Your task to perform on an android device: Go to location settings Image 0: 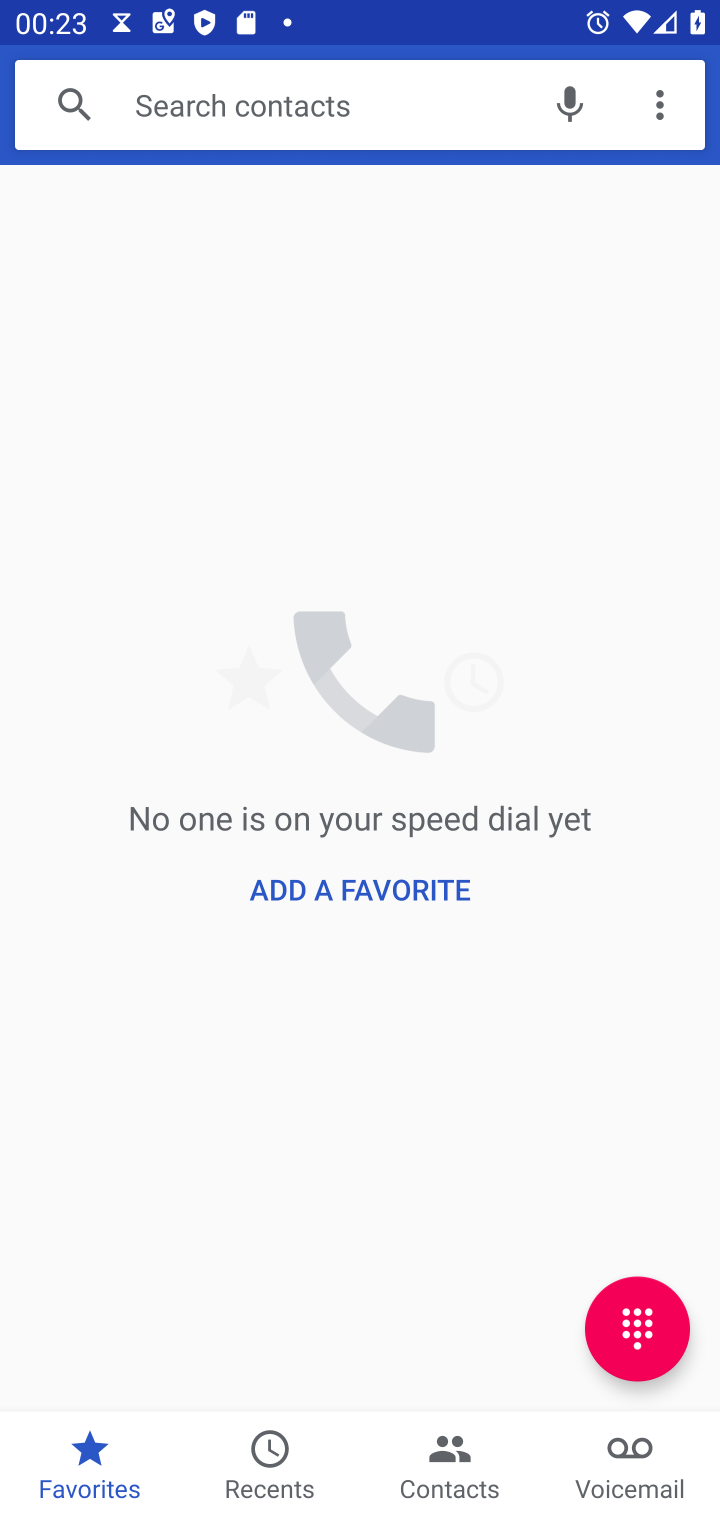
Step 0: press home button
Your task to perform on an android device: Go to location settings Image 1: 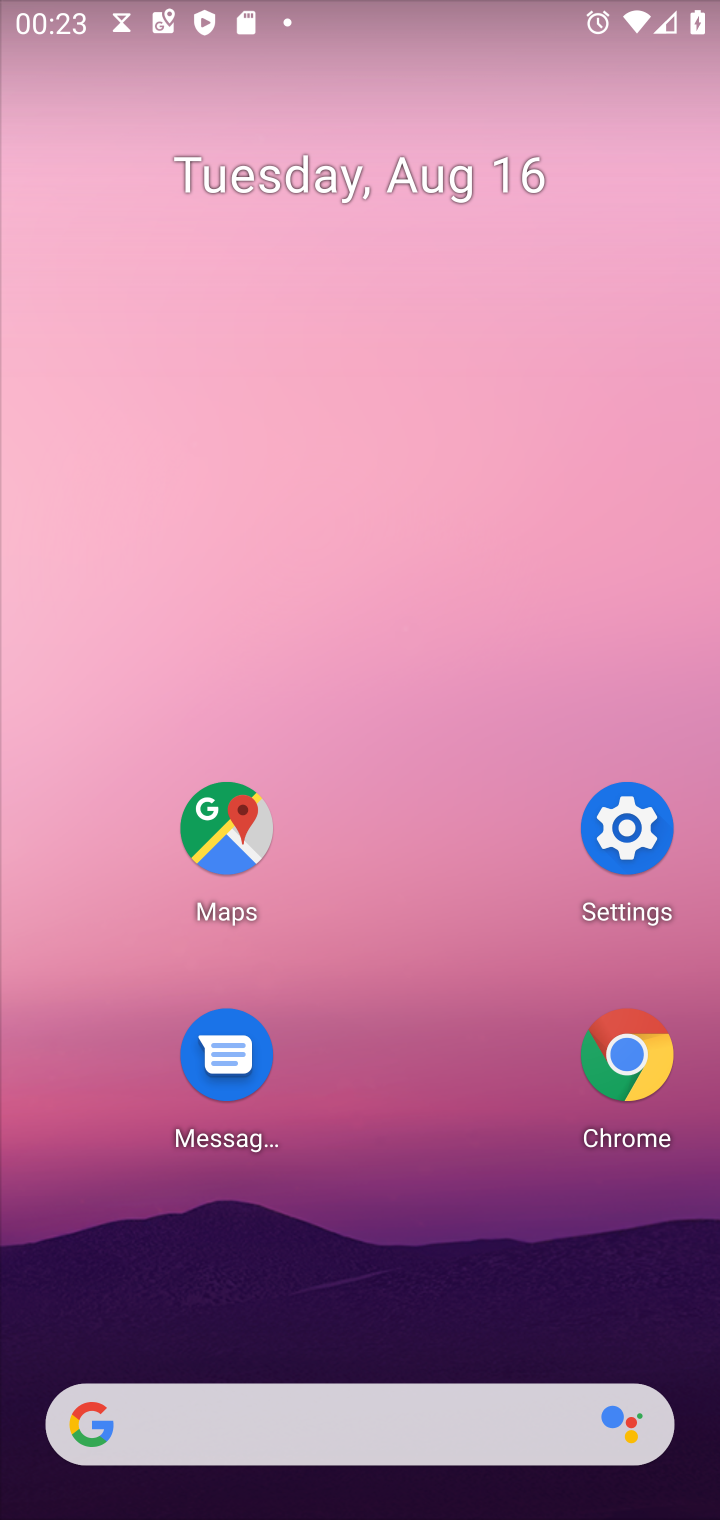
Step 1: click (633, 832)
Your task to perform on an android device: Go to location settings Image 2: 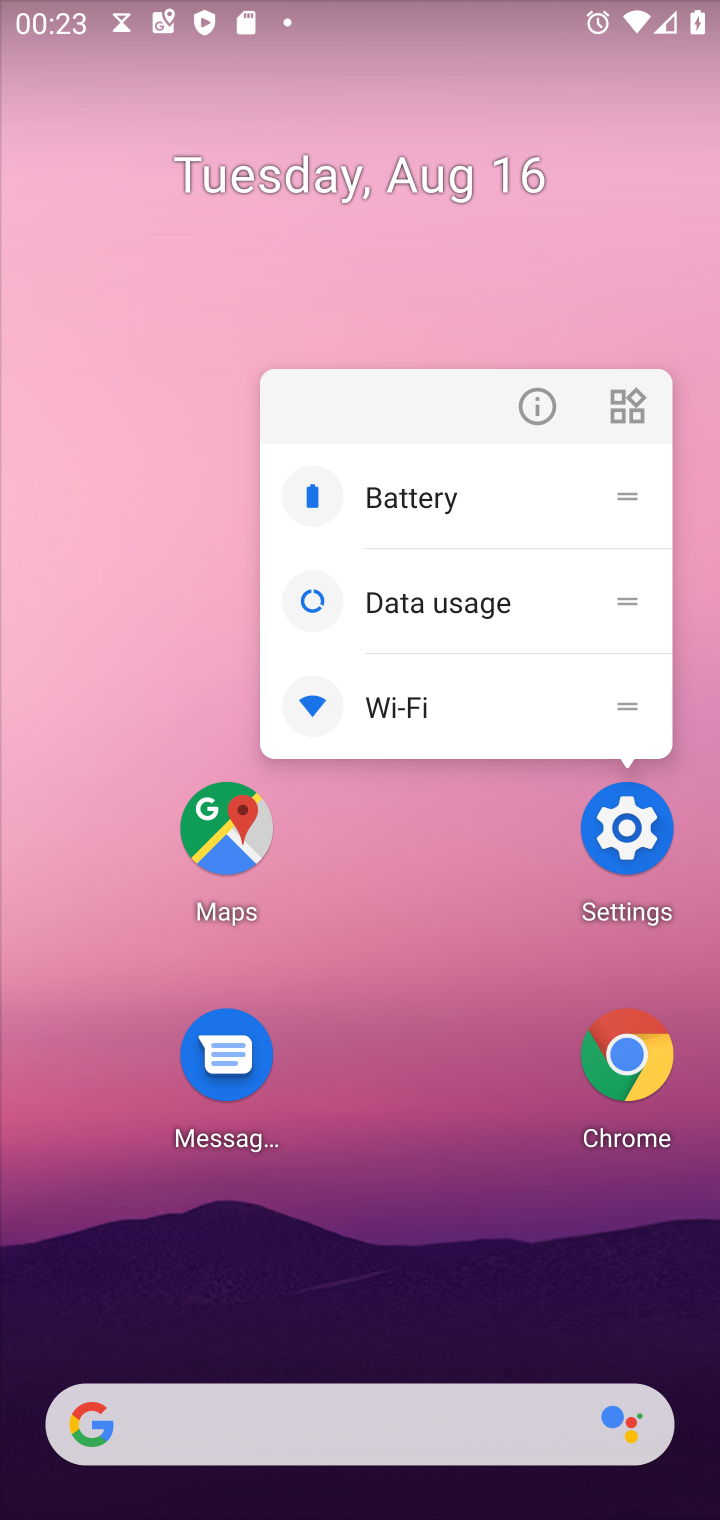
Step 2: click (635, 838)
Your task to perform on an android device: Go to location settings Image 3: 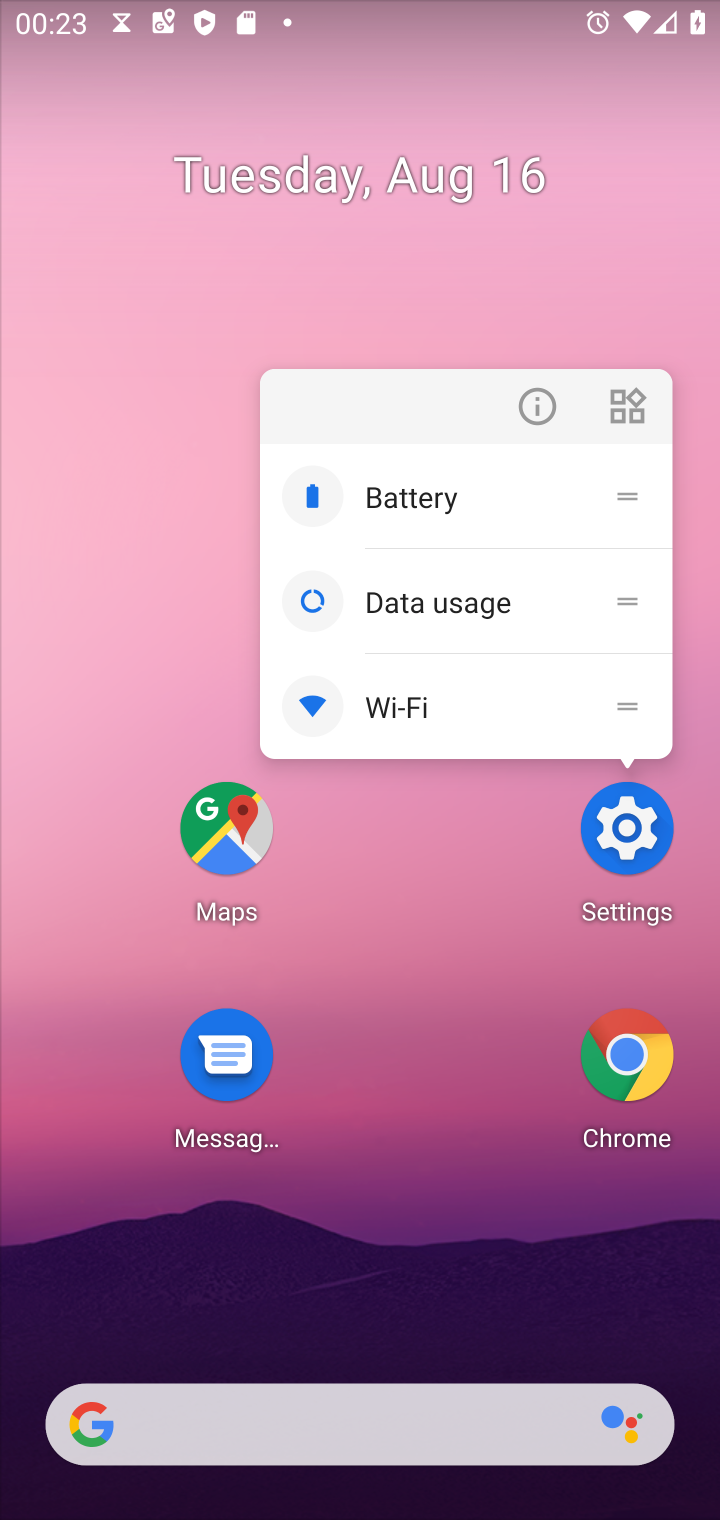
Step 3: click (608, 830)
Your task to perform on an android device: Go to location settings Image 4: 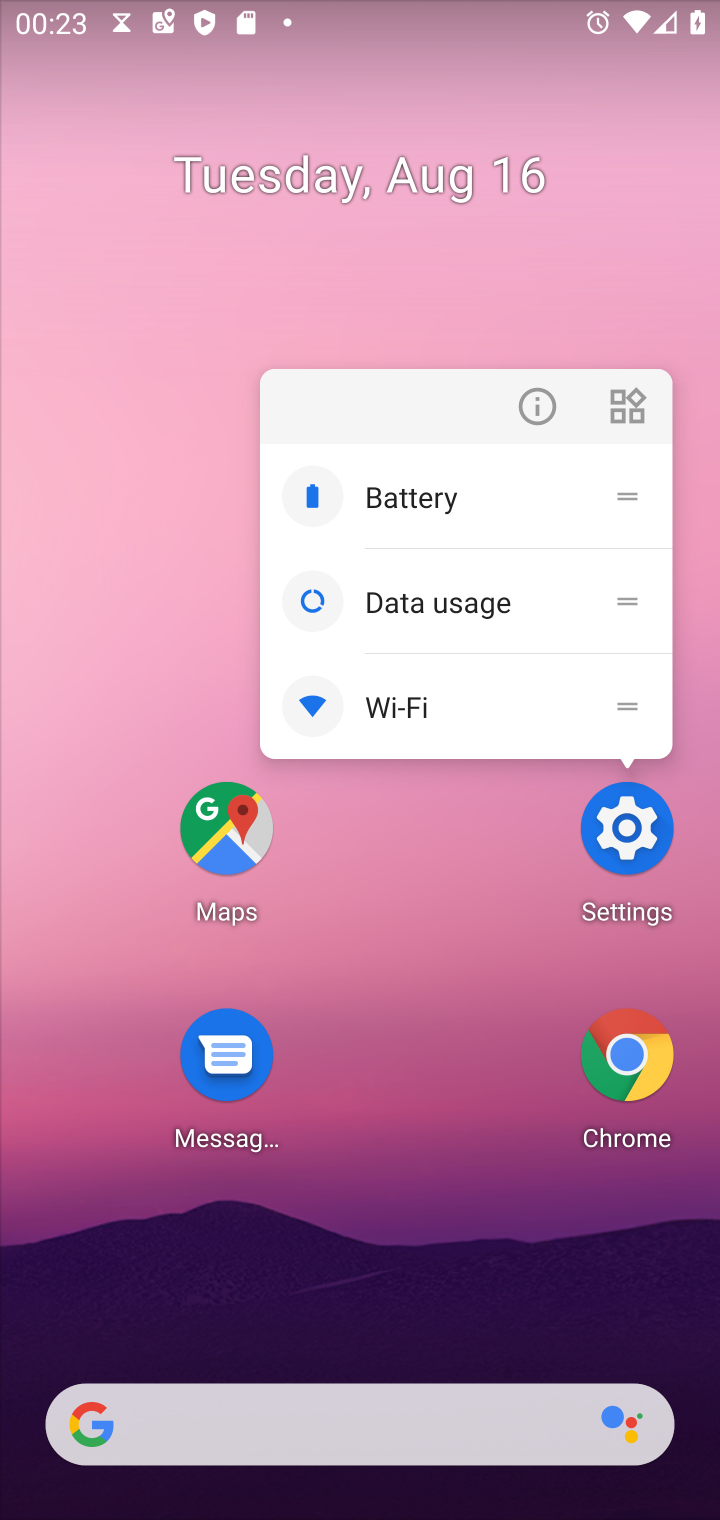
Step 4: click (608, 830)
Your task to perform on an android device: Go to location settings Image 5: 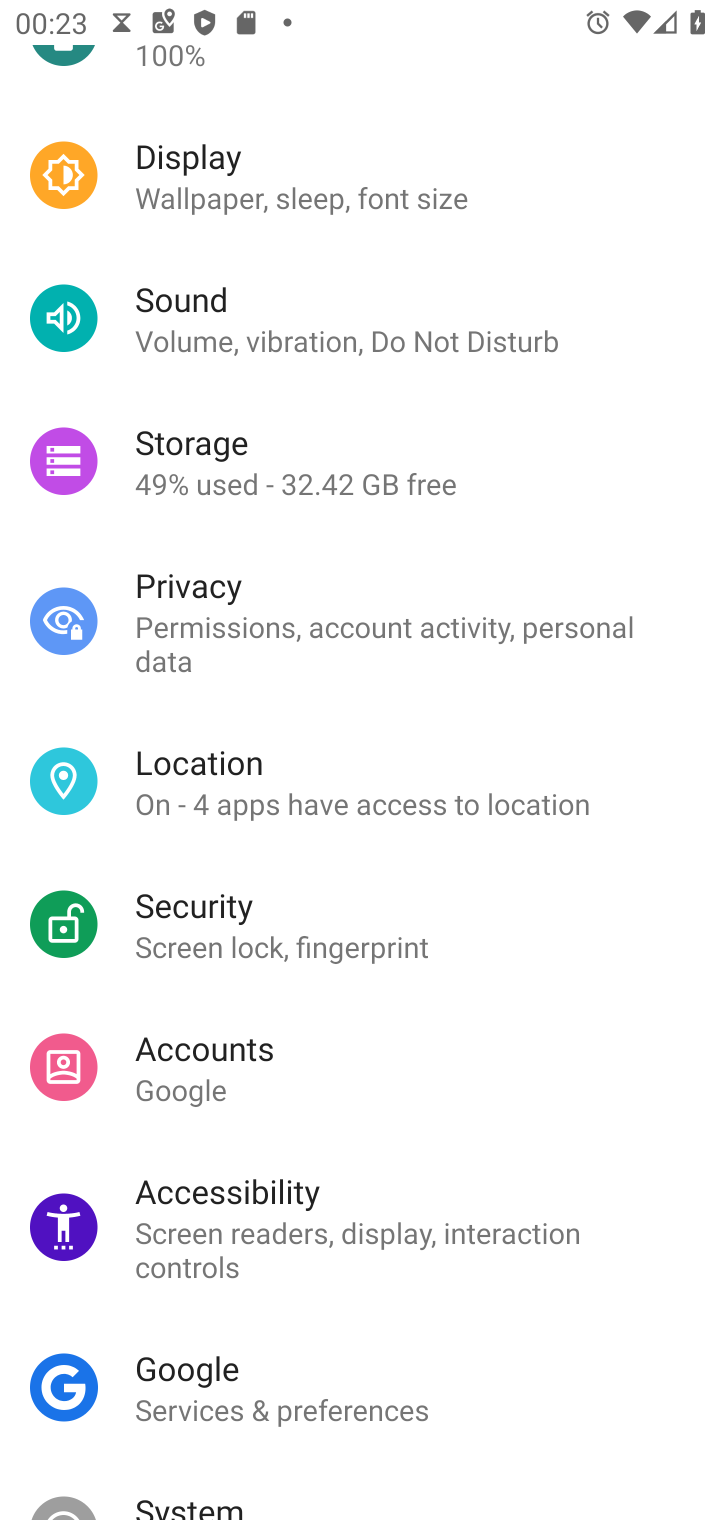
Step 5: click (155, 778)
Your task to perform on an android device: Go to location settings Image 6: 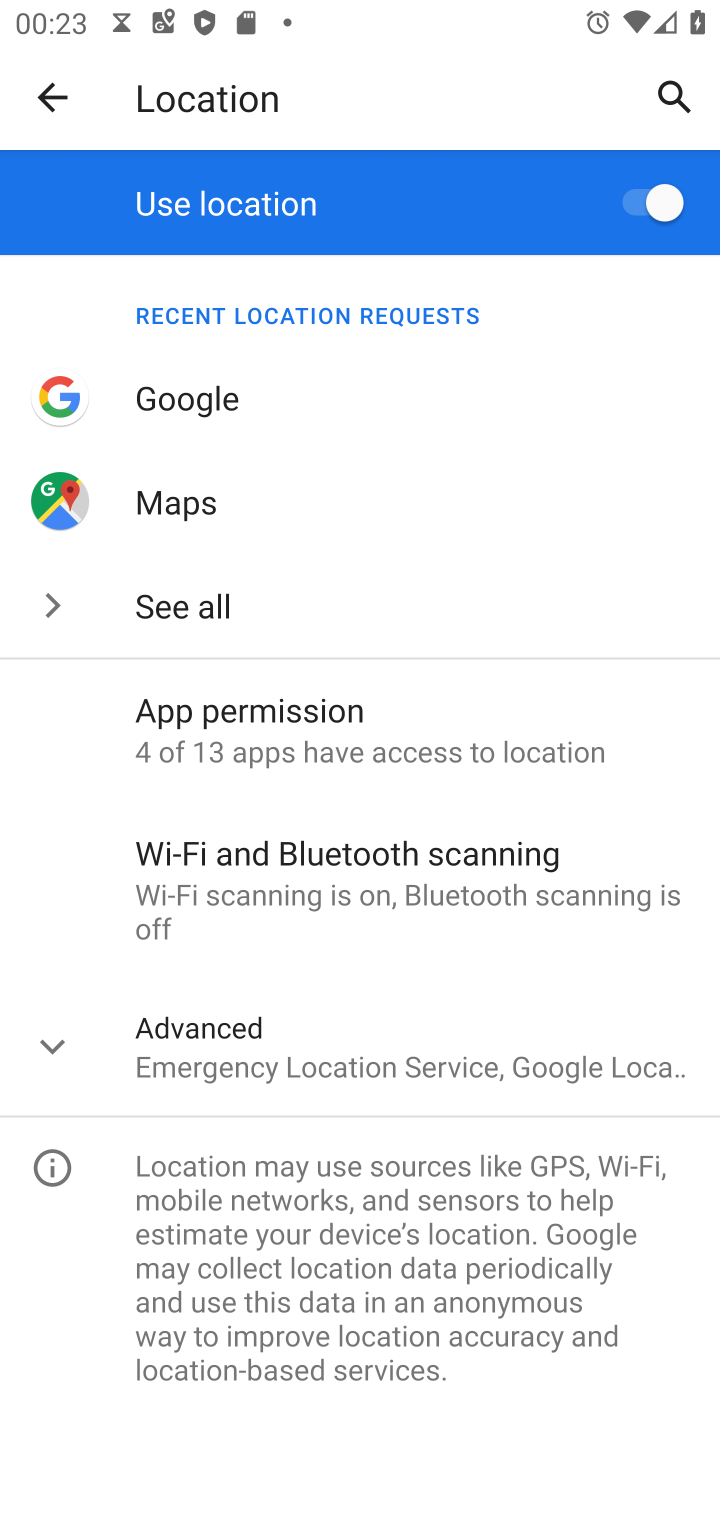
Step 6: click (275, 1035)
Your task to perform on an android device: Go to location settings Image 7: 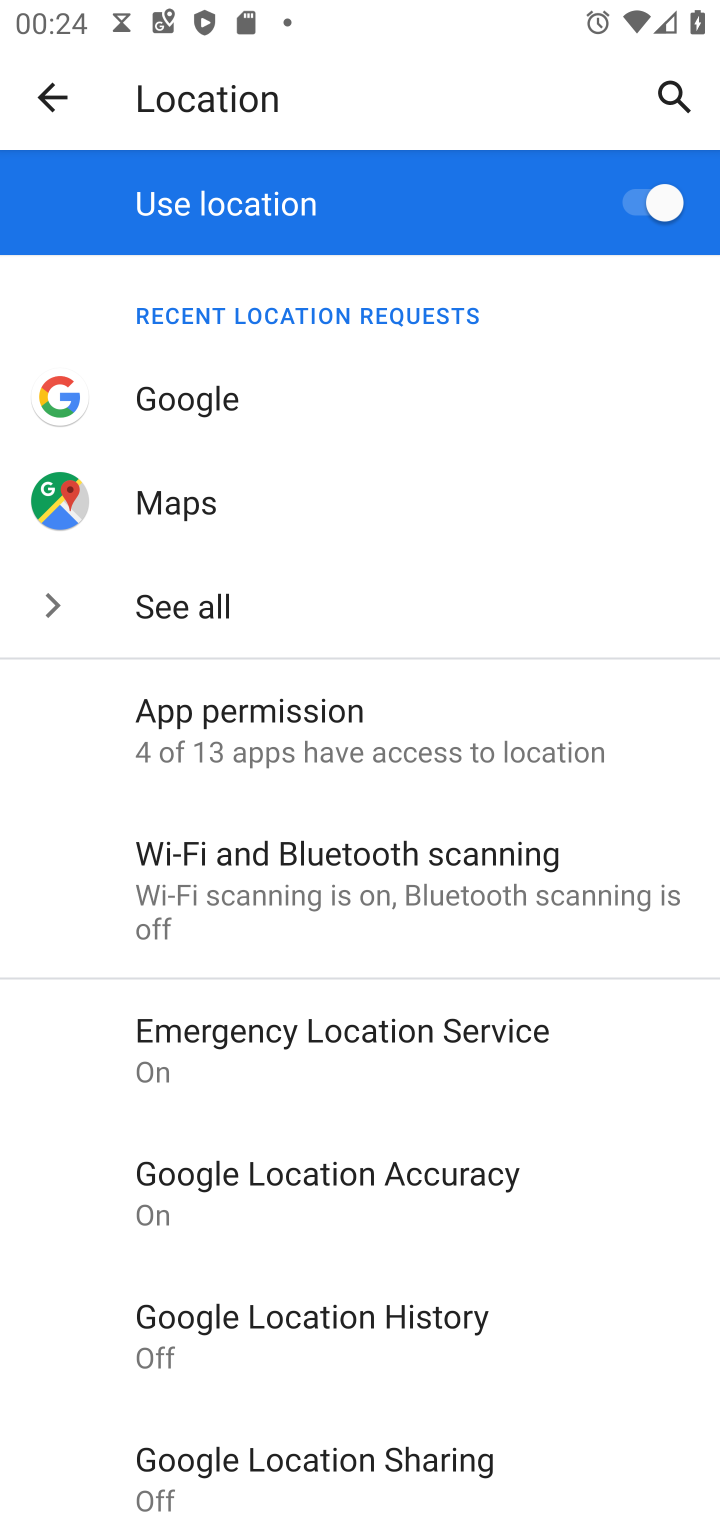
Step 7: task complete